Your task to perform on an android device: visit the assistant section in the google photos Image 0: 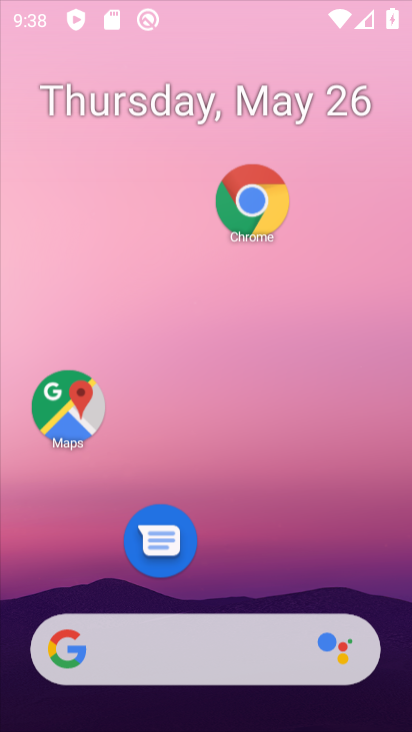
Step 0: press home button
Your task to perform on an android device: visit the assistant section in the google photos Image 1: 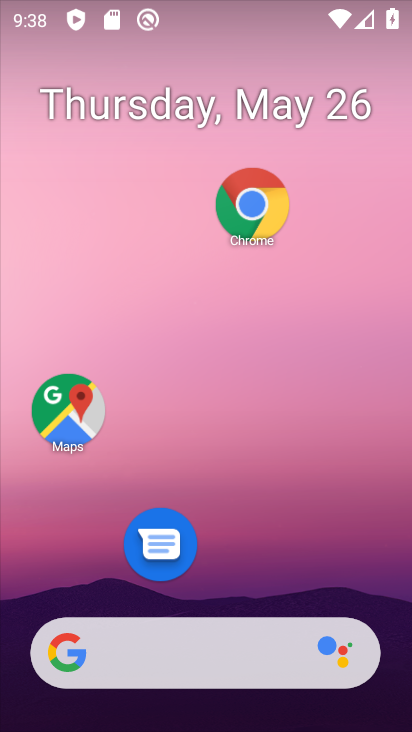
Step 1: drag from (229, 234) to (229, 72)
Your task to perform on an android device: visit the assistant section in the google photos Image 2: 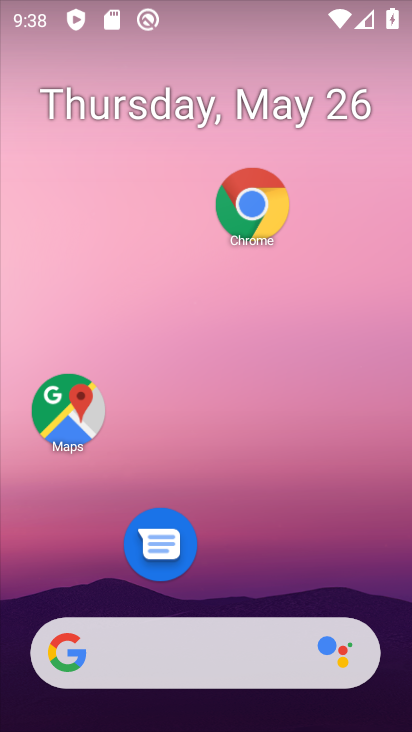
Step 2: drag from (219, 594) to (204, 2)
Your task to perform on an android device: visit the assistant section in the google photos Image 3: 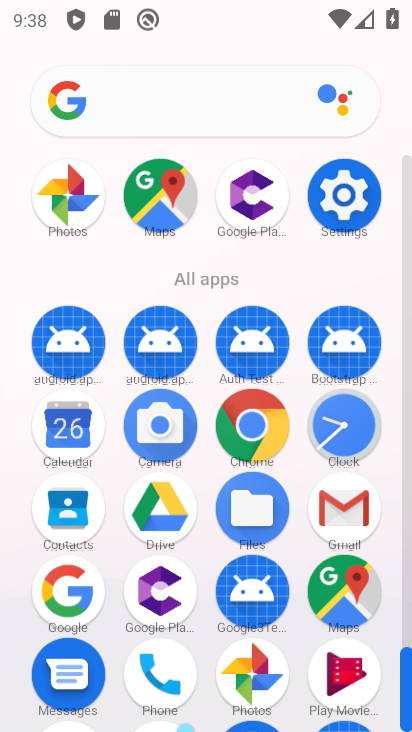
Step 3: click (252, 666)
Your task to perform on an android device: visit the assistant section in the google photos Image 4: 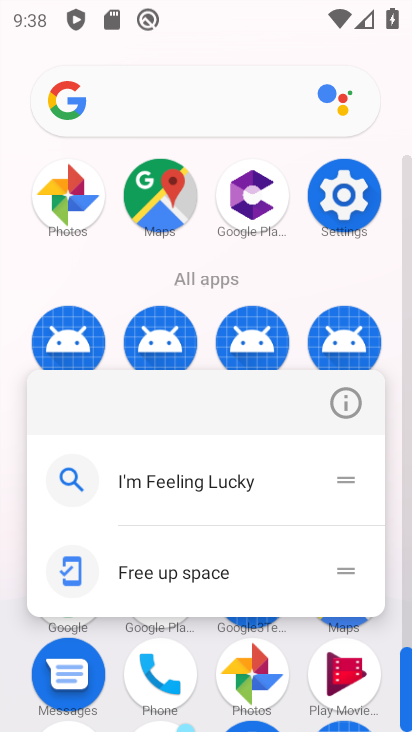
Step 4: click (251, 669)
Your task to perform on an android device: visit the assistant section in the google photos Image 5: 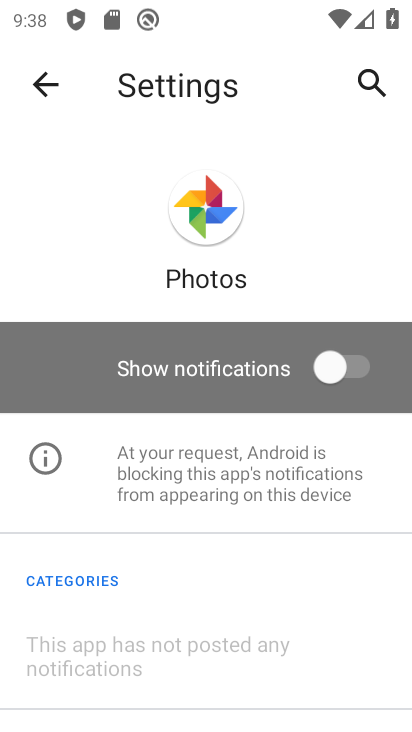
Step 5: click (54, 85)
Your task to perform on an android device: visit the assistant section in the google photos Image 6: 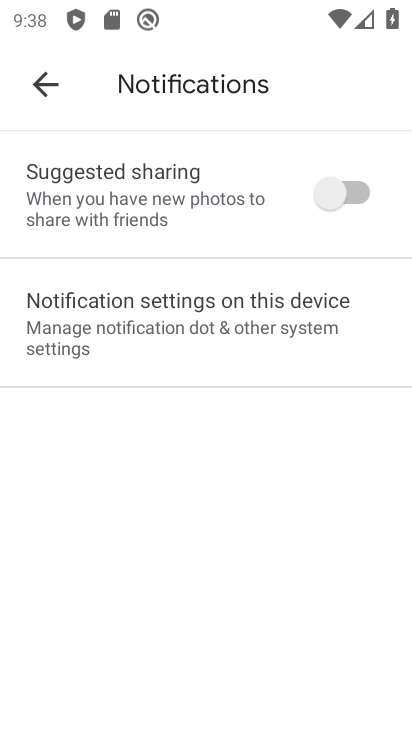
Step 6: click (49, 83)
Your task to perform on an android device: visit the assistant section in the google photos Image 7: 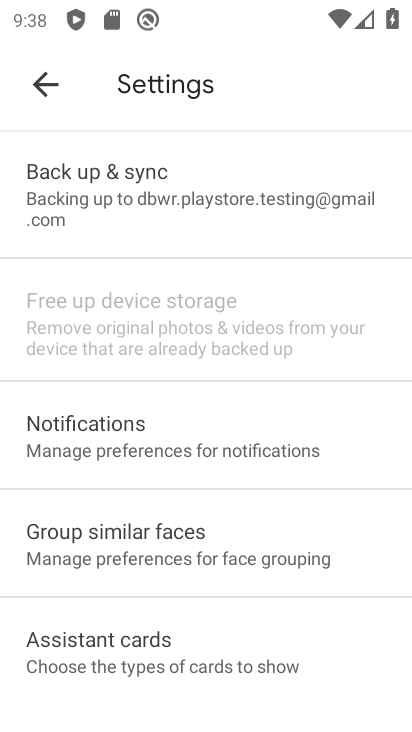
Step 7: click (53, 85)
Your task to perform on an android device: visit the assistant section in the google photos Image 8: 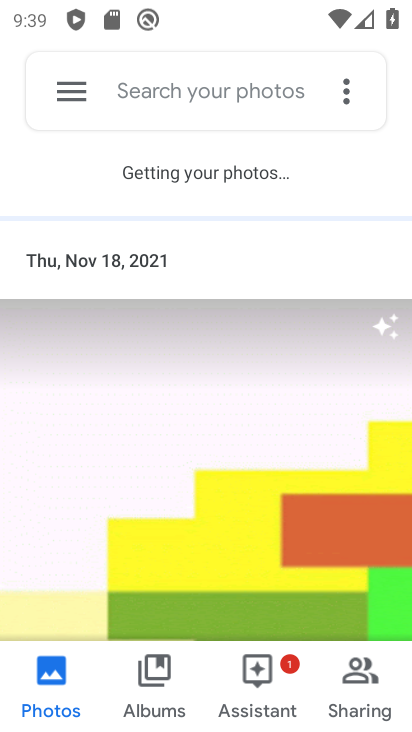
Step 8: click (254, 669)
Your task to perform on an android device: visit the assistant section in the google photos Image 9: 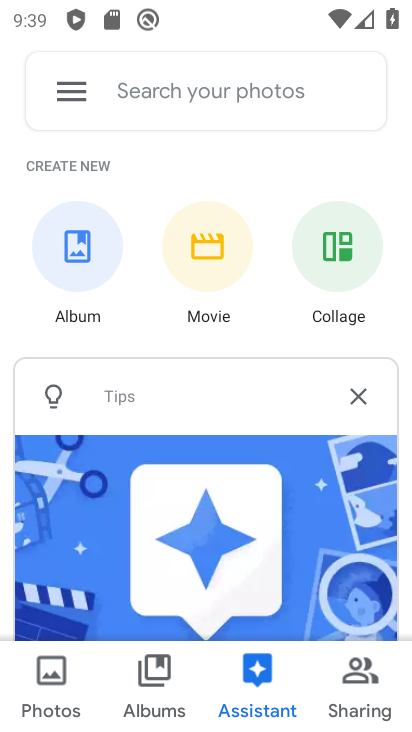
Step 9: task complete